Your task to perform on an android device: uninstall "Instagram" Image 0: 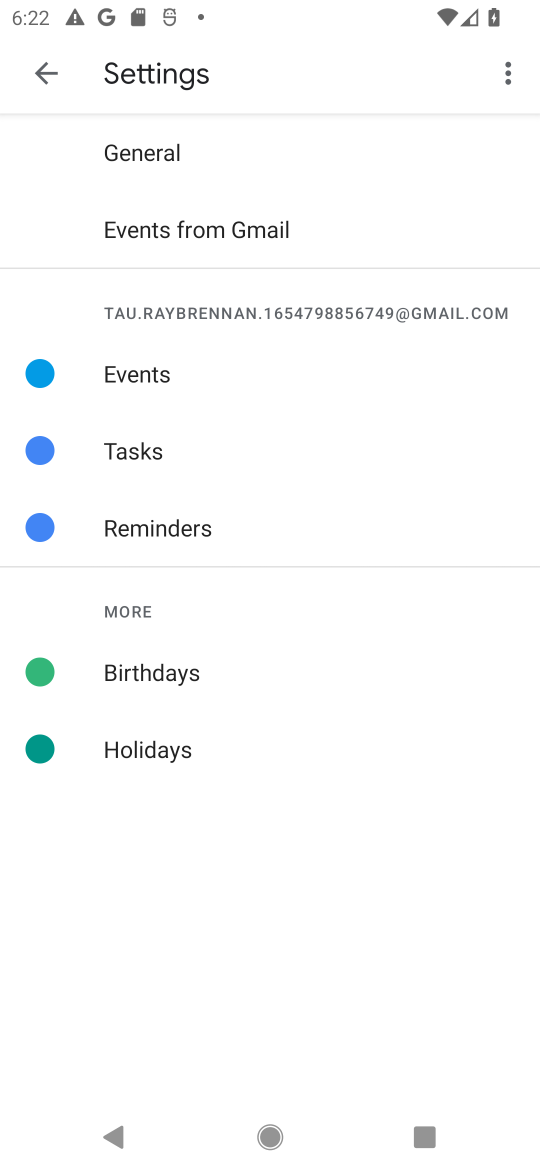
Step 0: press home button
Your task to perform on an android device: uninstall "Instagram" Image 1: 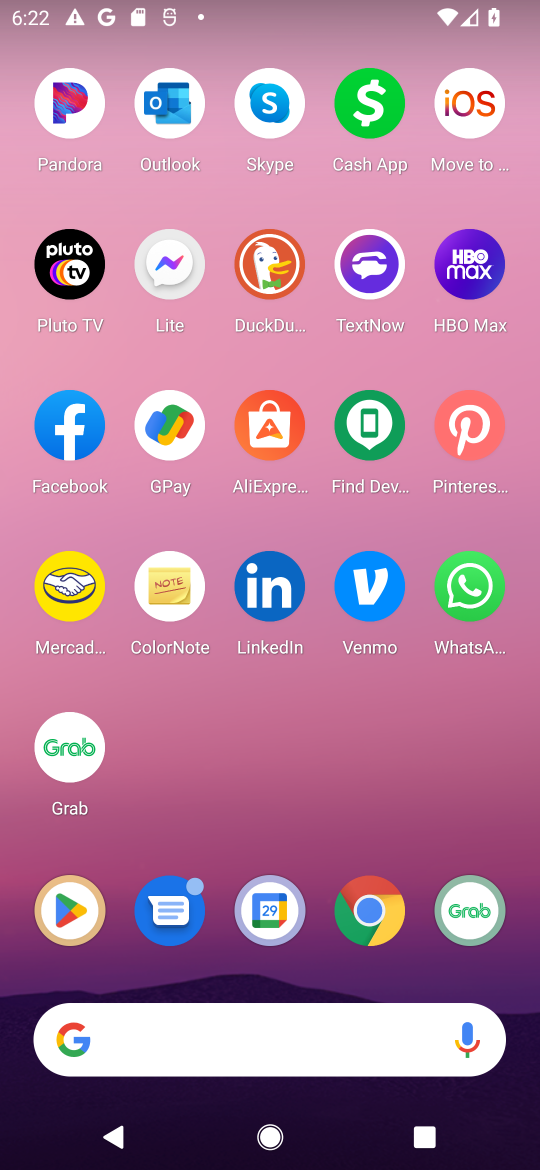
Step 1: drag from (285, 997) to (303, 319)
Your task to perform on an android device: uninstall "Instagram" Image 2: 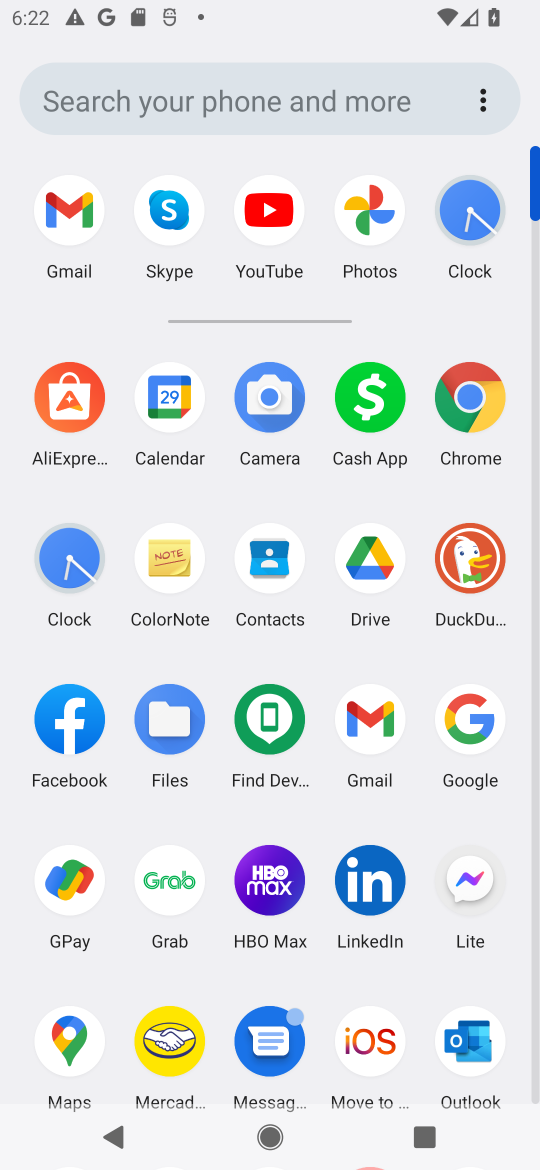
Step 2: drag from (225, 967) to (257, 351)
Your task to perform on an android device: uninstall "Instagram" Image 3: 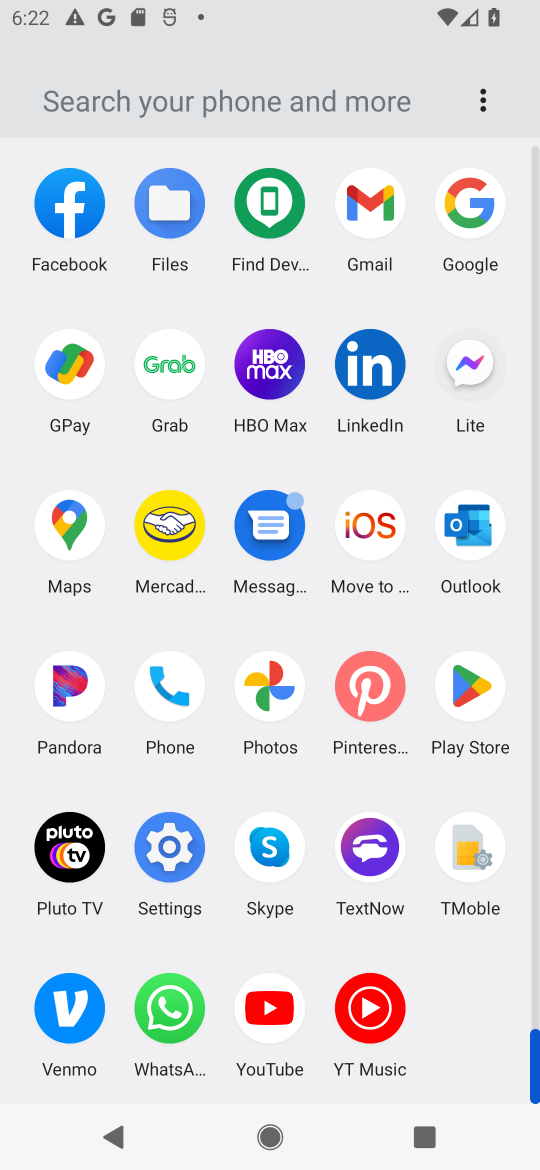
Step 3: click (470, 690)
Your task to perform on an android device: uninstall "Instagram" Image 4: 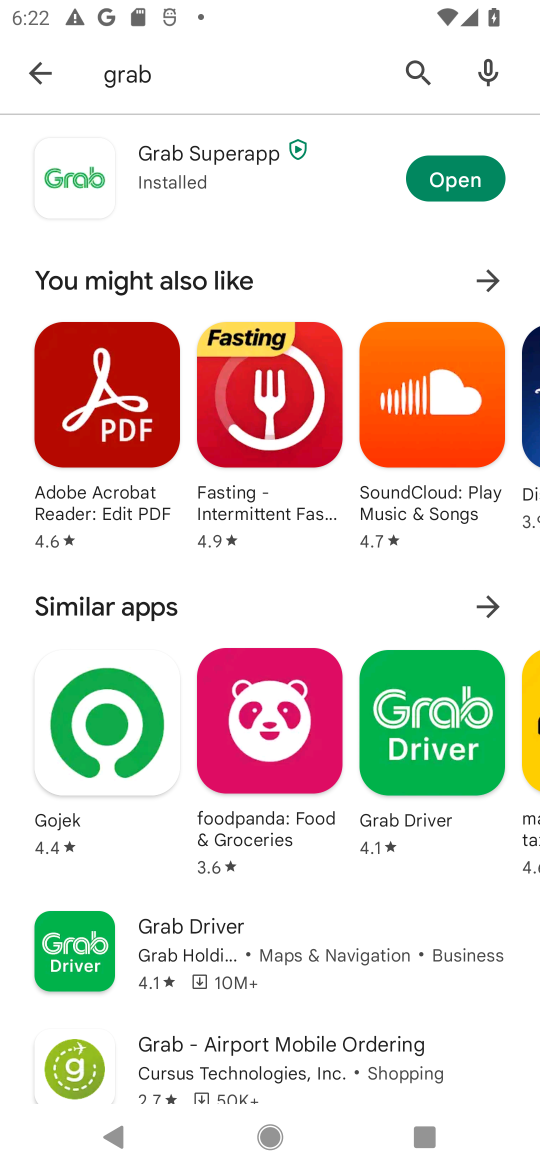
Step 4: drag from (35, 71) to (87, 71)
Your task to perform on an android device: uninstall "Instagram" Image 5: 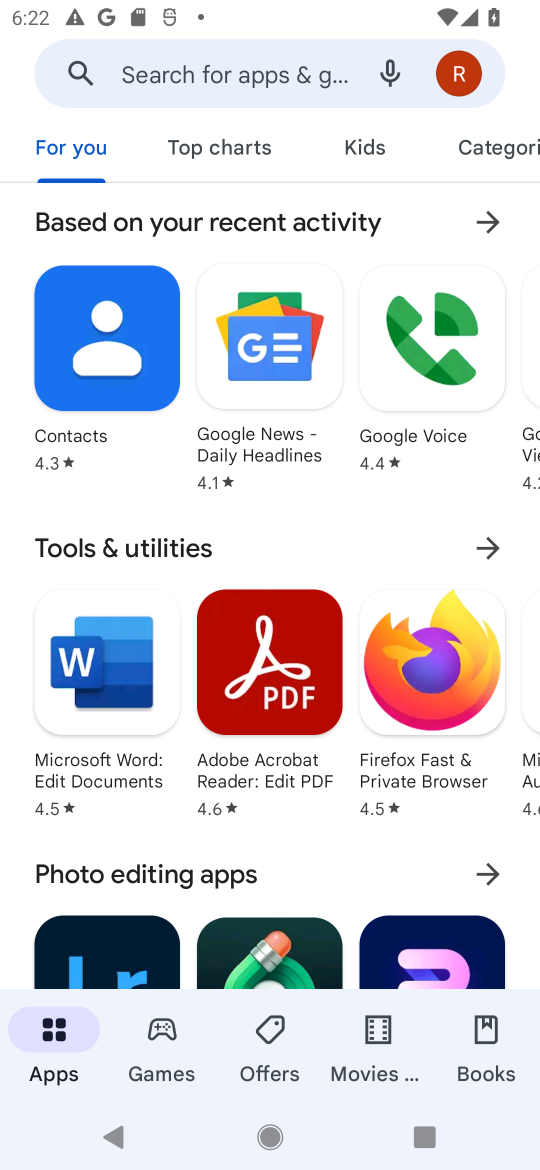
Step 5: click (246, 75)
Your task to perform on an android device: uninstall "Instagram" Image 6: 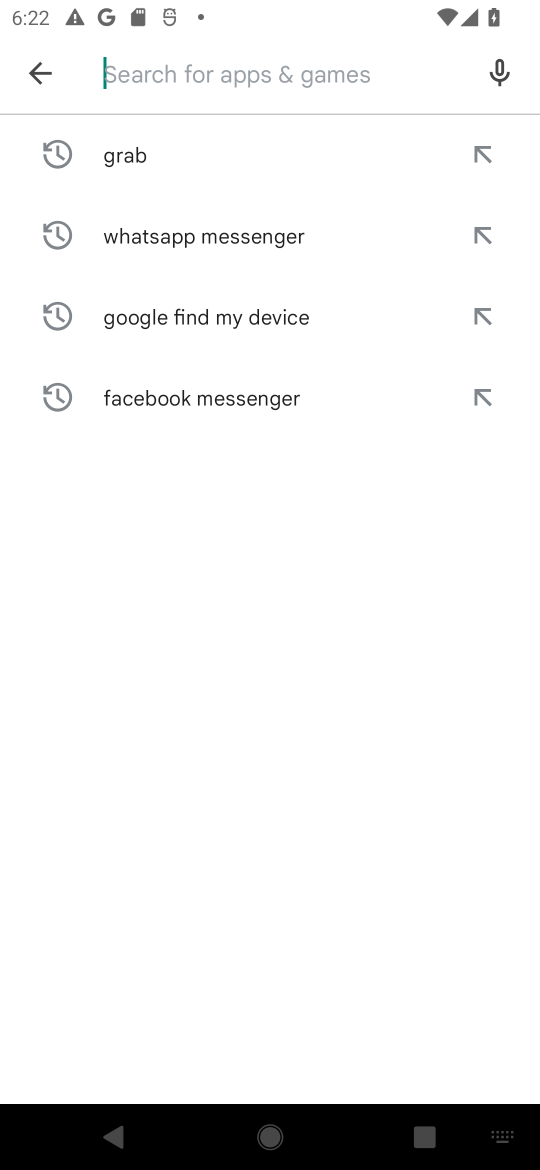
Step 6: type "Instagram"
Your task to perform on an android device: uninstall "Instagram" Image 7: 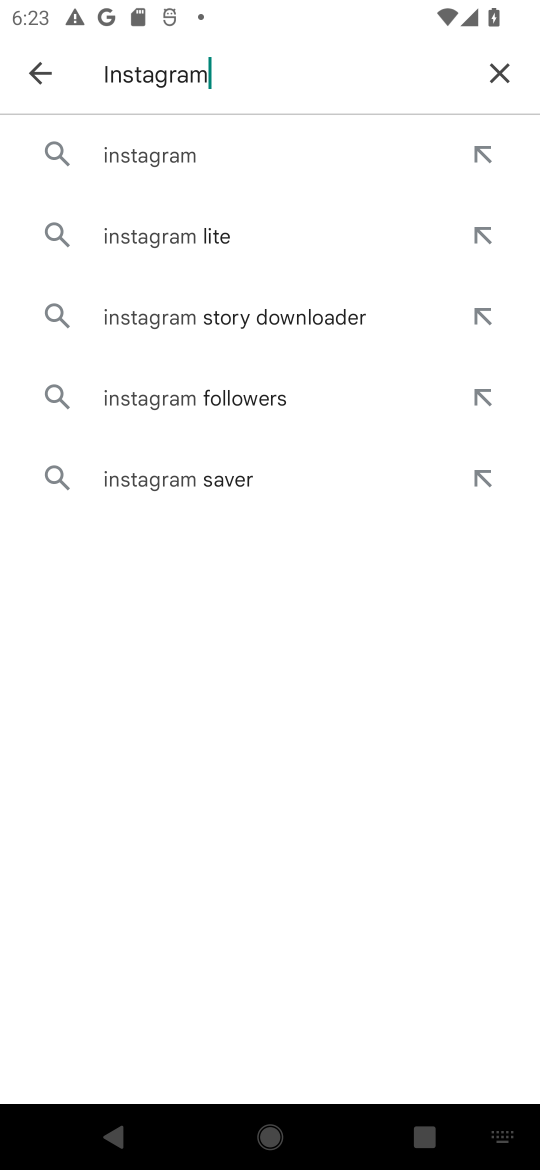
Step 7: click (186, 141)
Your task to perform on an android device: uninstall "Instagram" Image 8: 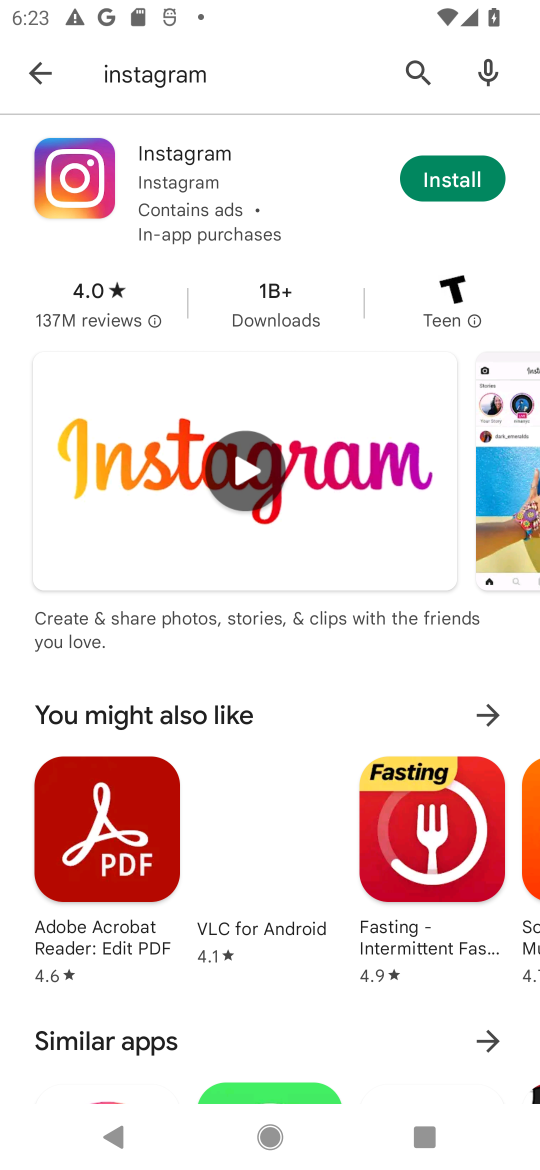
Step 8: task complete